Your task to perform on an android device: turn notification dots off Image 0: 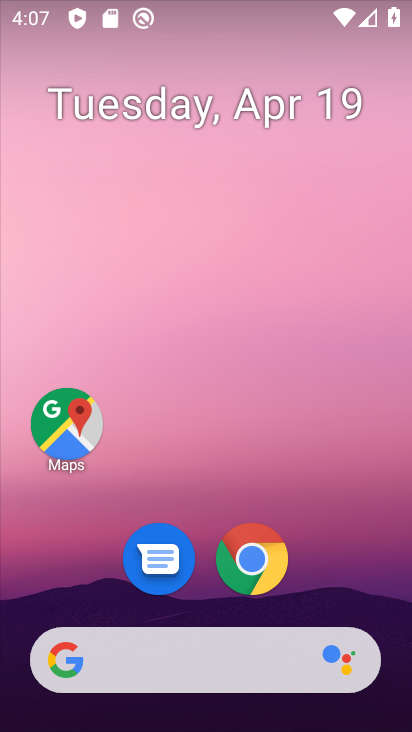
Step 0: drag from (336, 576) to (334, 102)
Your task to perform on an android device: turn notification dots off Image 1: 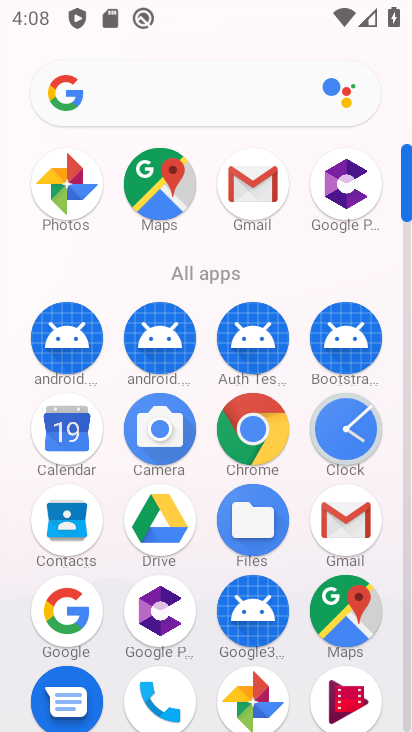
Step 1: drag from (411, 299) to (399, 525)
Your task to perform on an android device: turn notification dots off Image 2: 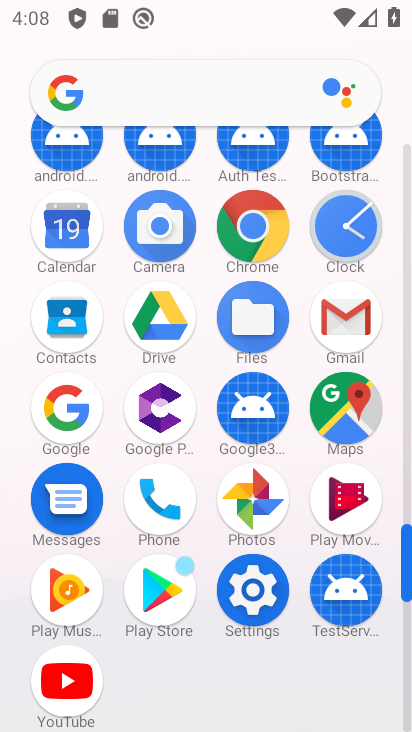
Step 2: click (261, 571)
Your task to perform on an android device: turn notification dots off Image 3: 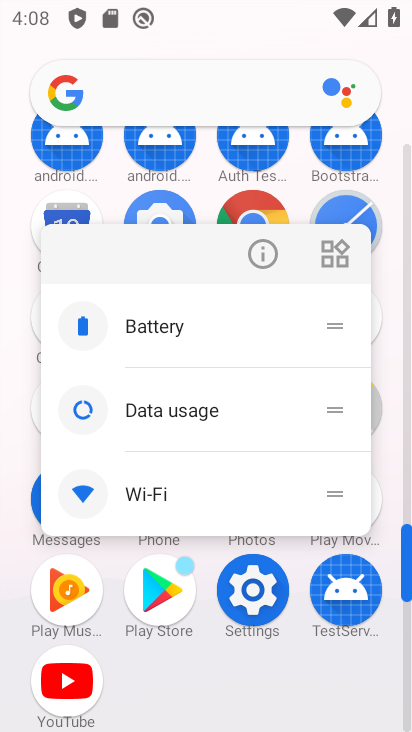
Step 3: click (257, 581)
Your task to perform on an android device: turn notification dots off Image 4: 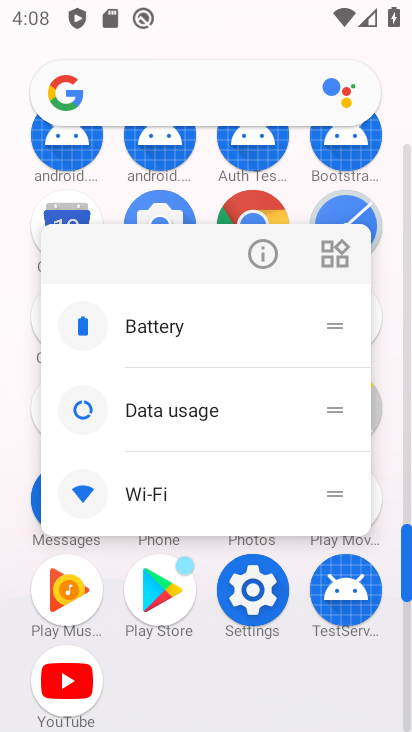
Step 4: click (257, 576)
Your task to perform on an android device: turn notification dots off Image 5: 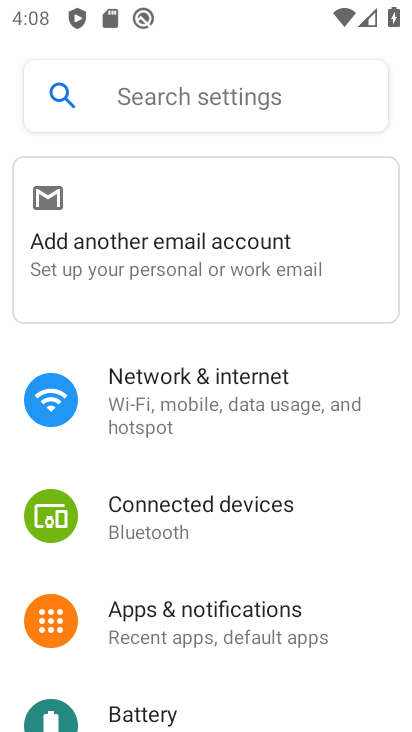
Step 5: drag from (202, 613) to (255, 244)
Your task to perform on an android device: turn notification dots off Image 6: 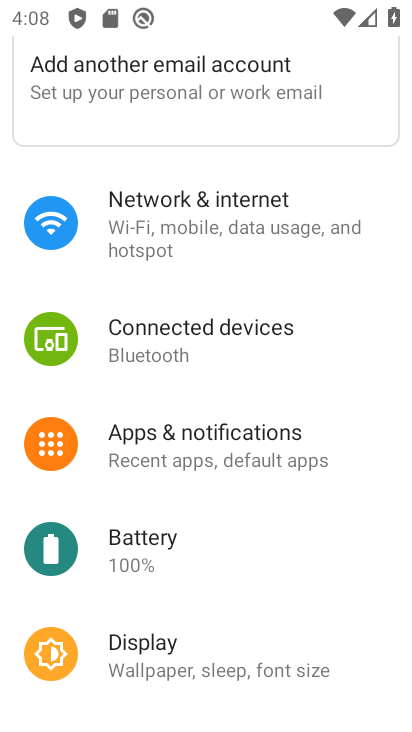
Step 6: drag from (245, 589) to (287, 327)
Your task to perform on an android device: turn notification dots off Image 7: 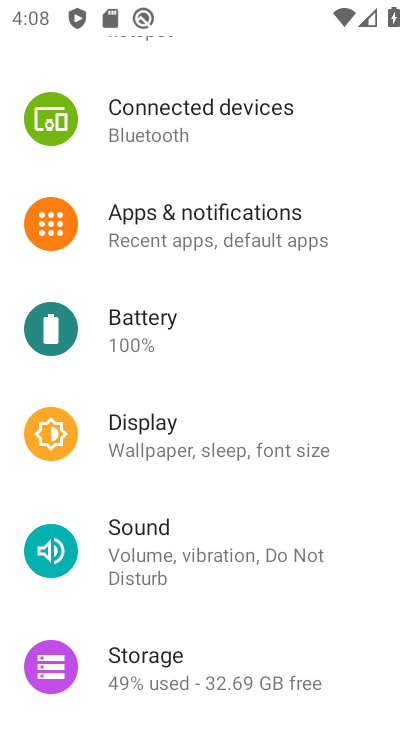
Step 7: drag from (219, 585) to (301, 242)
Your task to perform on an android device: turn notification dots off Image 8: 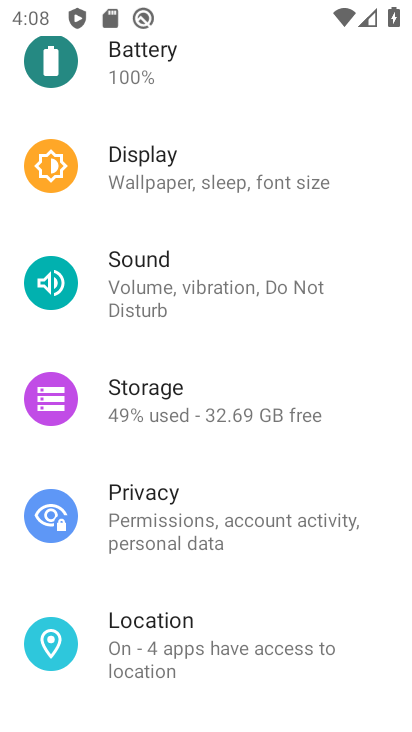
Step 8: drag from (210, 215) to (190, 668)
Your task to perform on an android device: turn notification dots off Image 9: 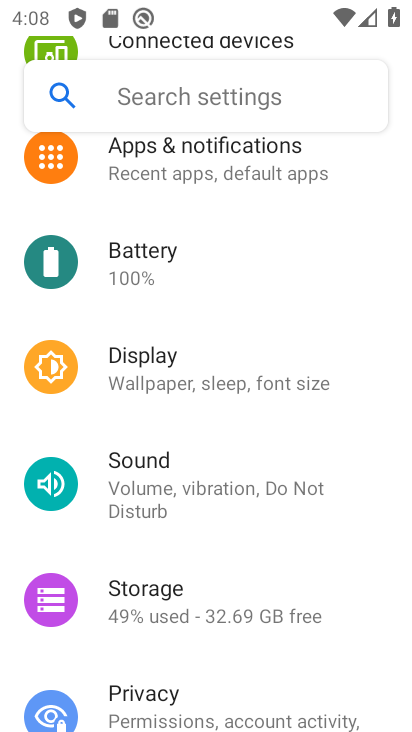
Step 9: drag from (246, 281) to (229, 524)
Your task to perform on an android device: turn notification dots off Image 10: 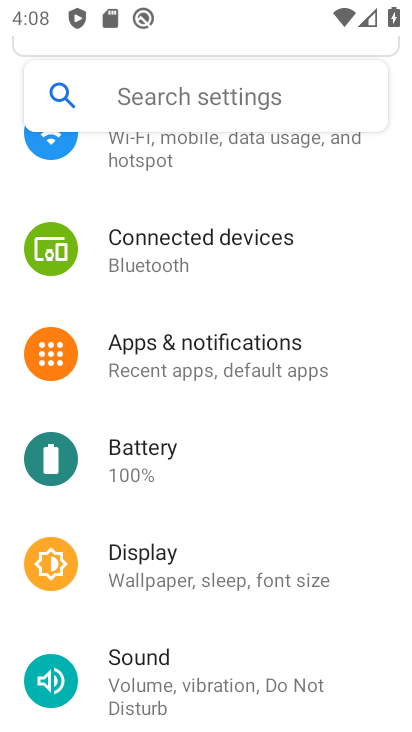
Step 10: click (248, 374)
Your task to perform on an android device: turn notification dots off Image 11: 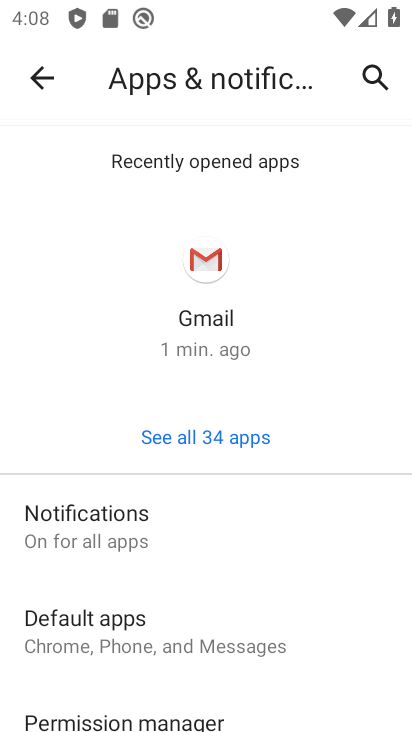
Step 11: drag from (198, 583) to (249, 268)
Your task to perform on an android device: turn notification dots off Image 12: 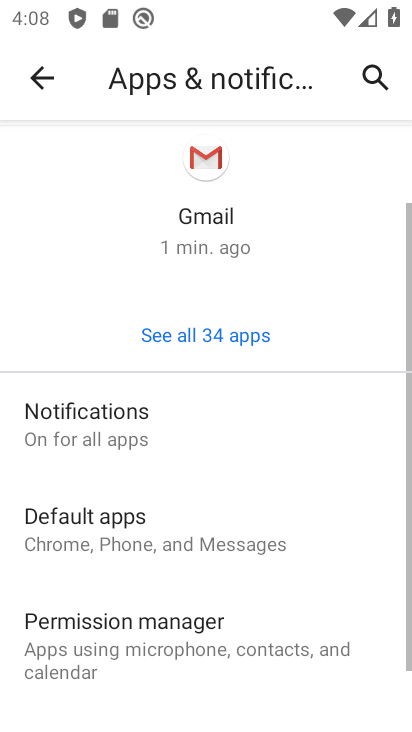
Step 12: drag from (198, 515) to (188, 239)
Your task to perform on an android device: turn notification dots off Image 13: 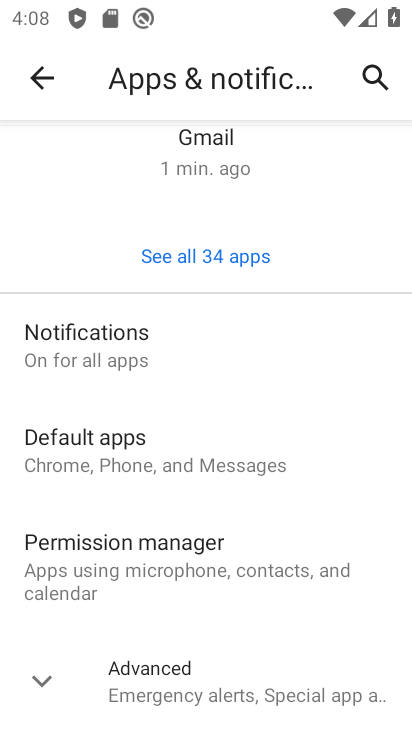
Step 13: click (137, 673)
Your task to perform on an android device: turn notification dots off Image 14: 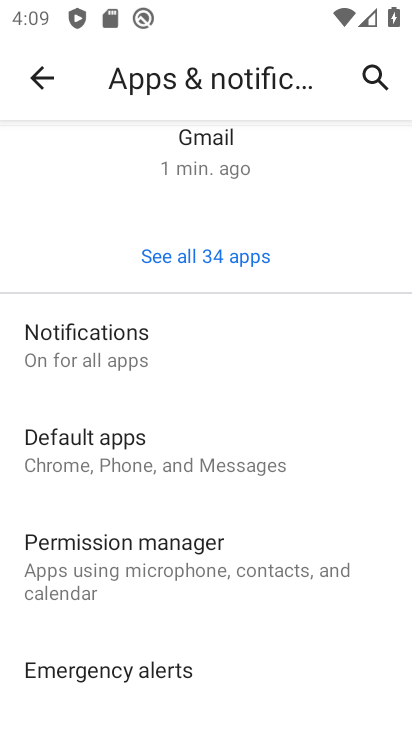
Step 14: drag from (190, 541) to (254, 299)
Your task to perform on an android device: turn notification dots off Image 15: 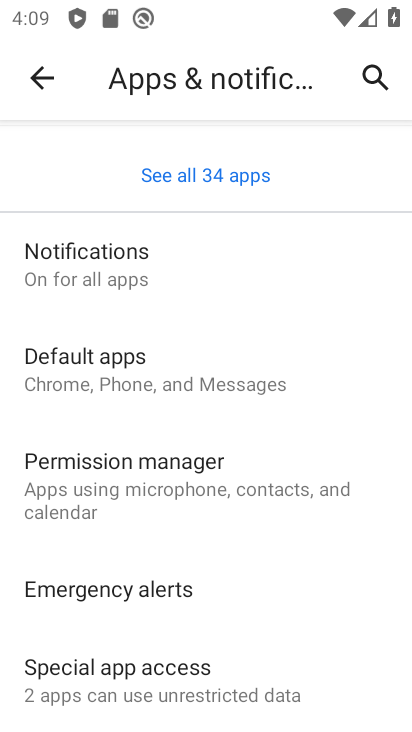
Step 15: click (211, 267)
Your task to perform on an android device: turn notification dots off Image 16: 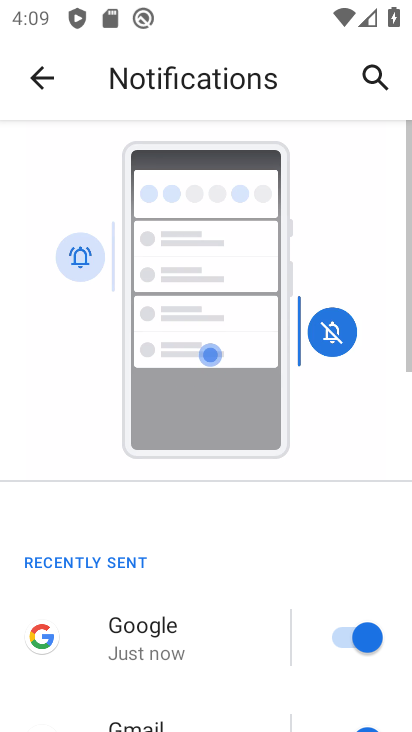
Step 16: drag from (221, 611) to (280, 244)
Your task to perform on an android device: turn notification dots off Image 17: 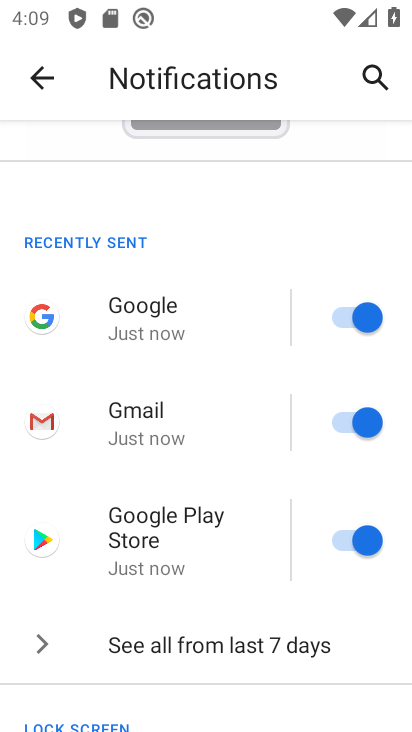
Step 17: drag from (126, 629) to (185, 248)
Your task to perform on an android device: turn notification dots off Image 18: 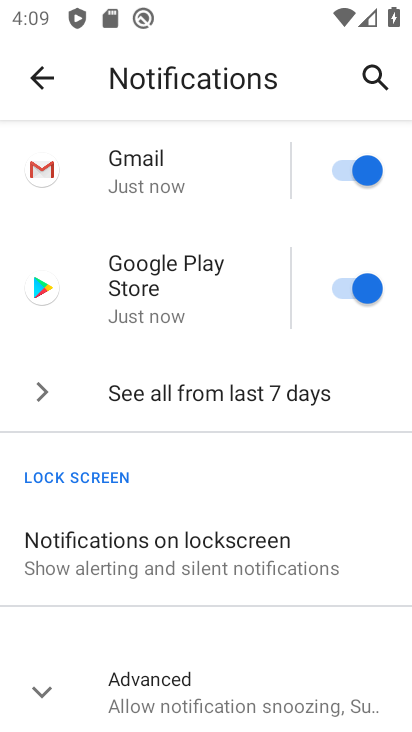
Step 18: click (112, 697)
Your task to perform on an android device: turn notification dots off Image 19: 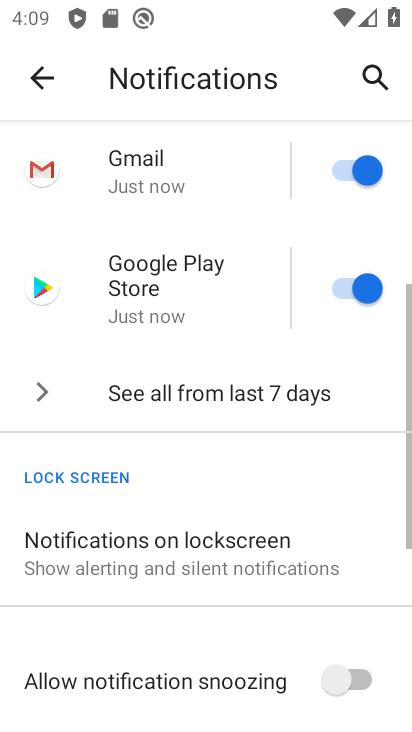
Step 19: drag from (226, 617) to (314, 106)
Your task to perform on an android device: turn notification dots off Image 20: 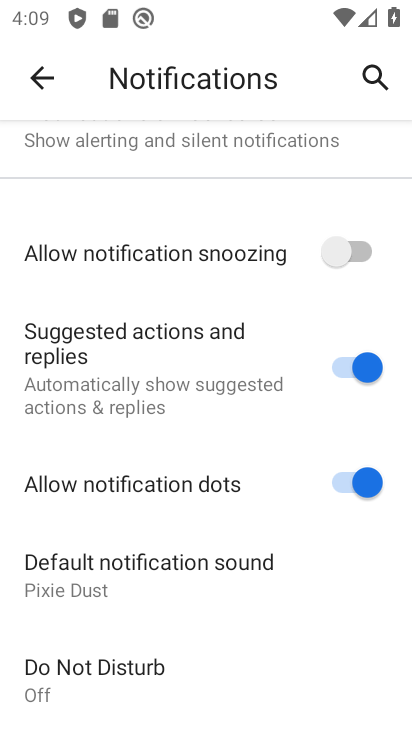
Step 20: click (352, 453)
Your task to perform on an android device: turn notification dots off Image 21: 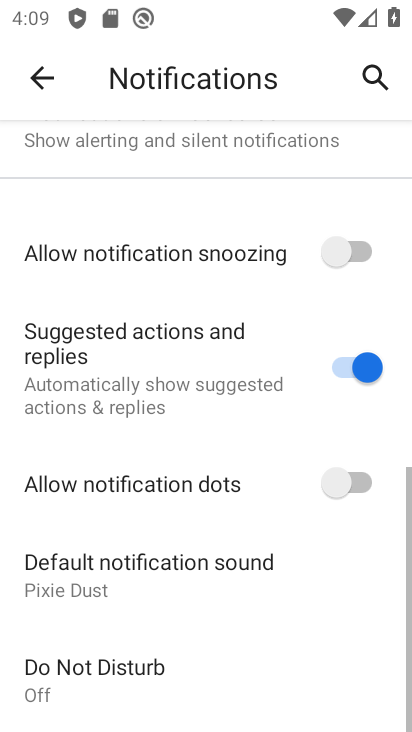
Step 21: task complete